Your task to perform on an android device: Open notification settings Image 0: 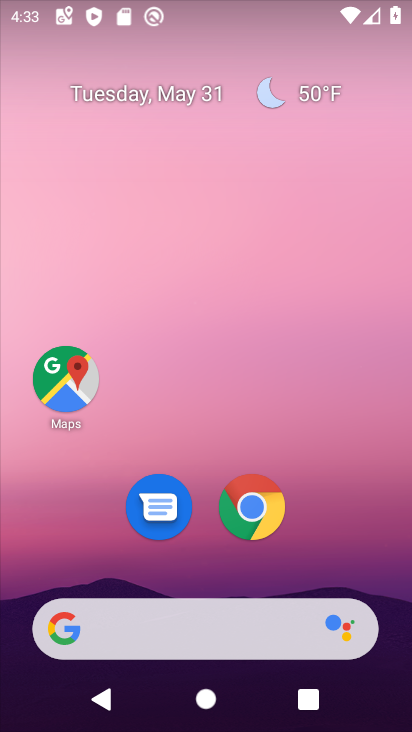
Step 0: drag from (316, 526) to (322, 39)
Your task to perform on an android device: Open notification settings Image 1: 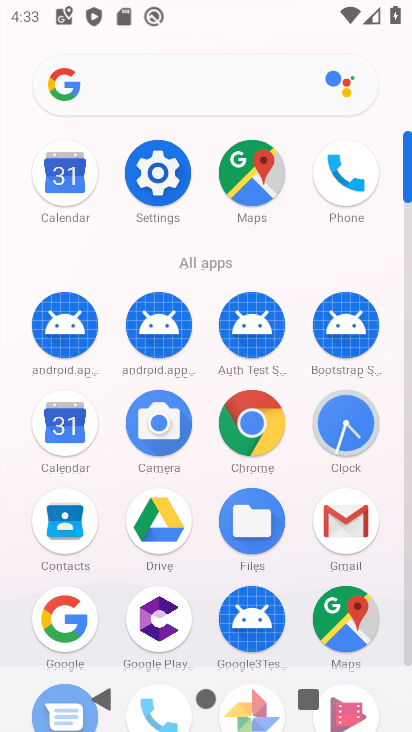
Step 1: click (143, 175)
Your task to perform on an android device: Open notification settings Image 2: 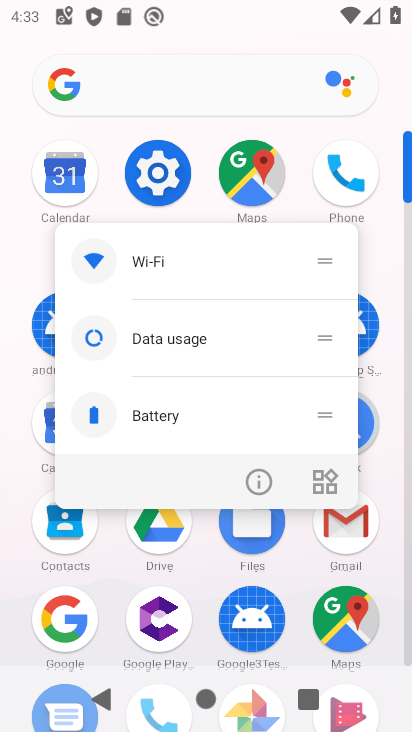
Step 2: click (143, 175)
Your task to perform on an android device: Open notification settings Image 3: 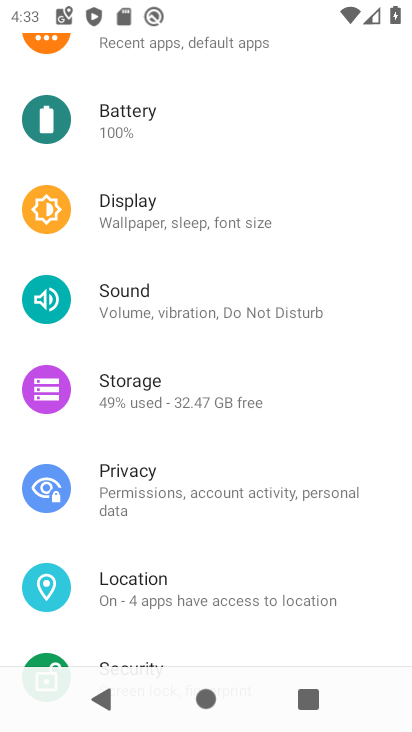
Step 3: drag from (212, 182) to (241, 532)
Your task to perform on an android device: Open notification settings Image 4: 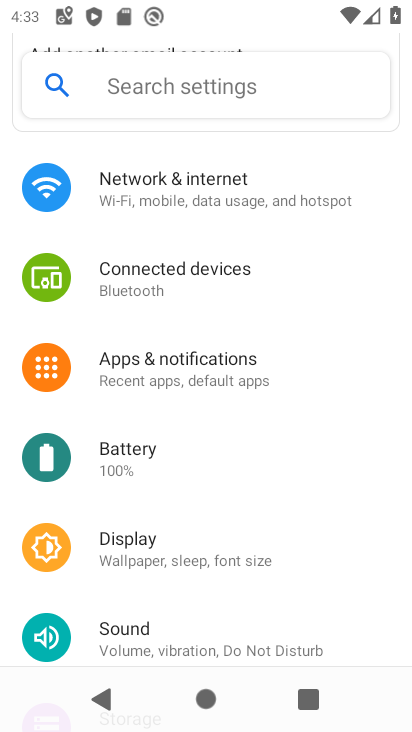
Step 4: click (215, 373)
Your task to perform on an android device: Open notification settings Image 5: 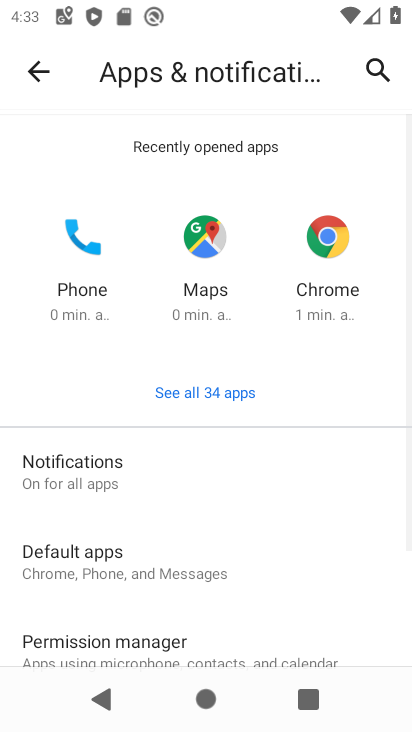
Step 5: click (171, 472)
Your task to perform on an android device: Open notification settings Image 6: 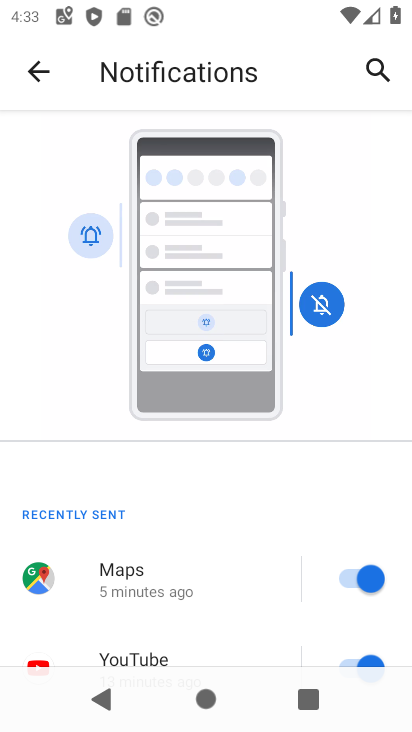
Step 6: task complete